Your task to perform on an android device: Go to Google Image 0: 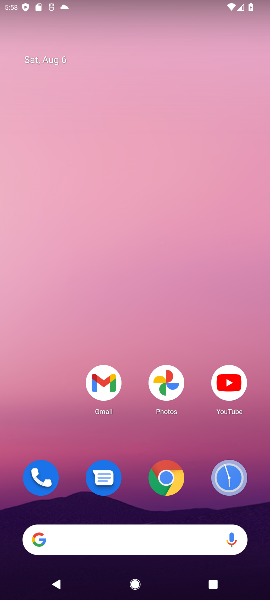
Step 0: drag from (127, 496) to (99, 533)
Your task to perform on an android device: Go to Google Image 1: 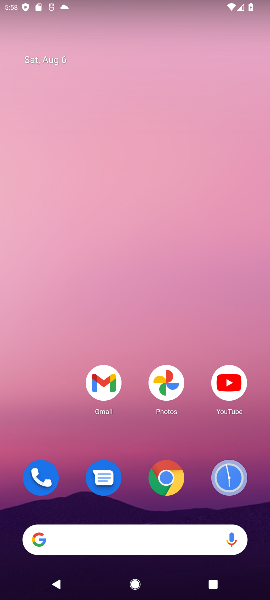
Step 1: click (83, 542)
Your task to perform on an android device: Go to Google Image 2: 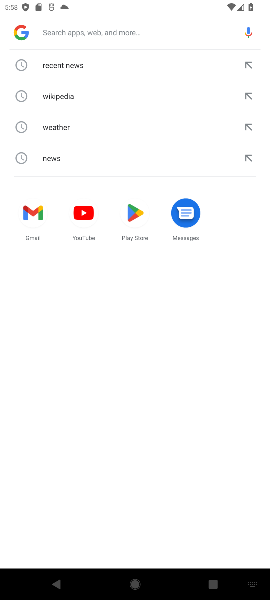
Step 2: task complete